Your task to perform on an android device: turn on showing notifications on the lock screen Image 0: 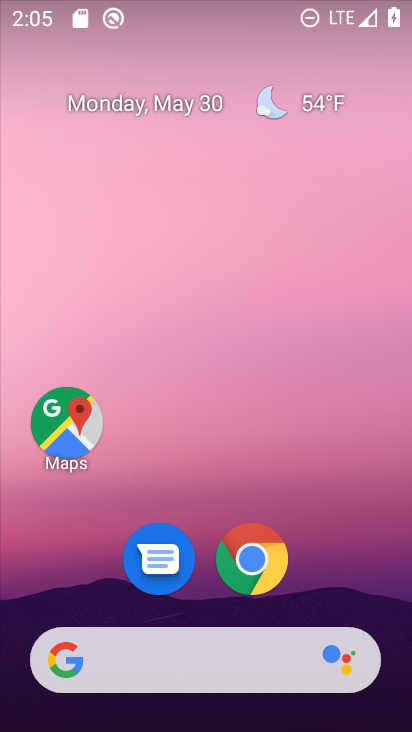
Step 0: drag from (327, 592) to (291, 42)
Your task to perform on an android device: turn on showing notifications on the lock screen Image 1: 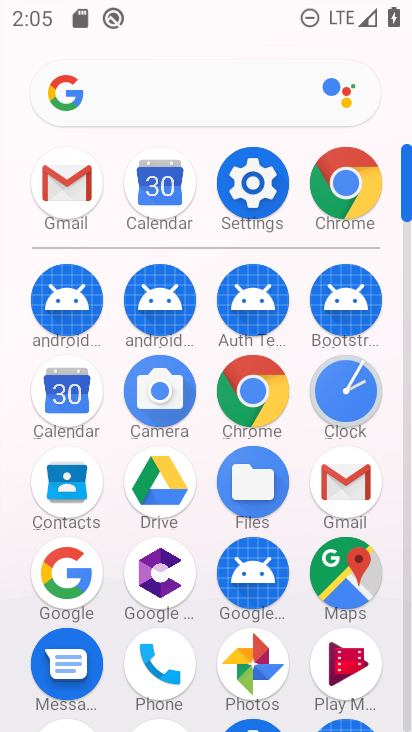
Step 1: click (257, 185)
Your task to perform on an android device: turn on showing notifications on the lock screen Image 2: 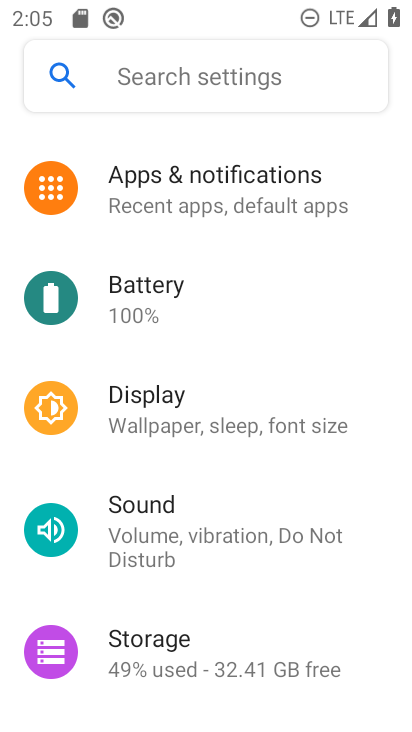
Step 2: click (228, 204)
Your task to perform on an android device: turn on showing notifications on the lock screen Image 3: 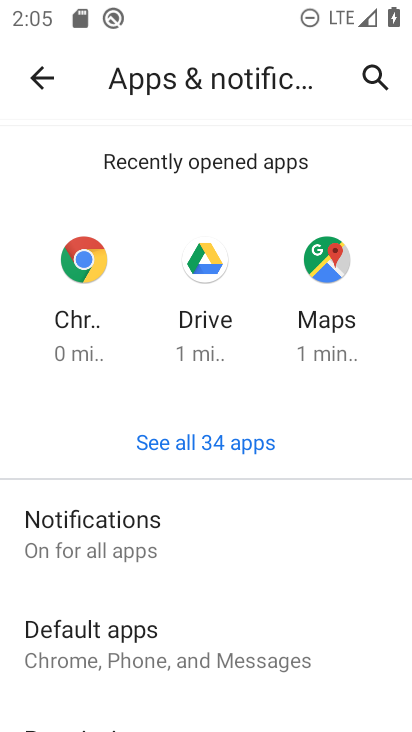
Step 3: click (137, 537)
Your task to perform on an android device: turn on showing notifications on the lock screen Image 4: 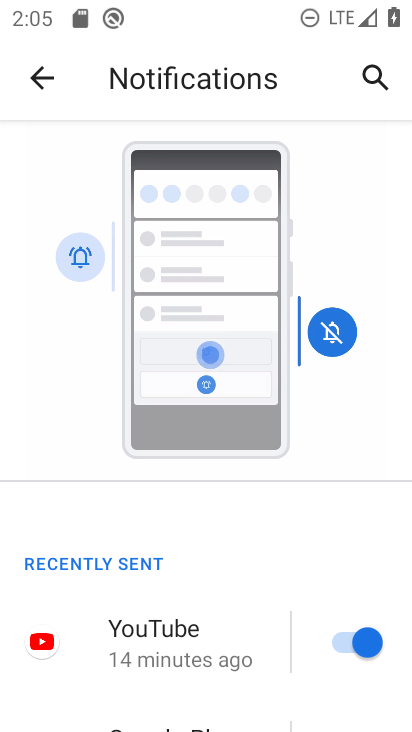
Step 4: drag from (170, 592) to (205, 191)
Your task to perform on an android device: turn on showing notifications on the lock screen Image 5: 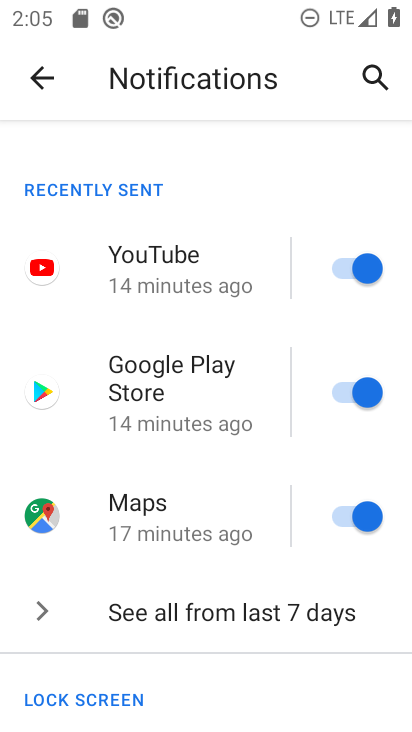
Step 5: drag from (190, 634) to (301, 268)
Your task to perform on an android device: turn on showing notifications on the lock screen Image 6: 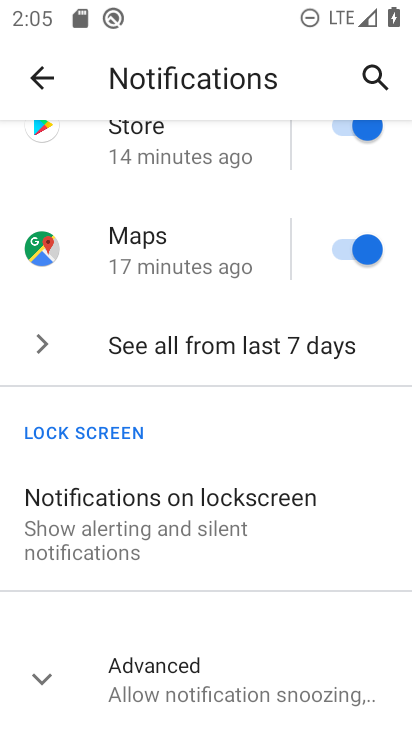
Step 6: click (140, 520)
Your task to perform on an android device: turn on showing notifications on the lock screen Image 7: 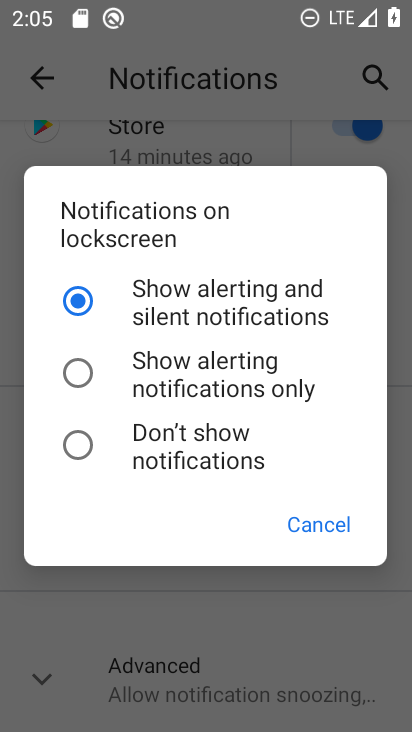
Step 7: click (163, 382)
Your task to perform on an android device: turn on showing notifications on the lock screen Image 8: 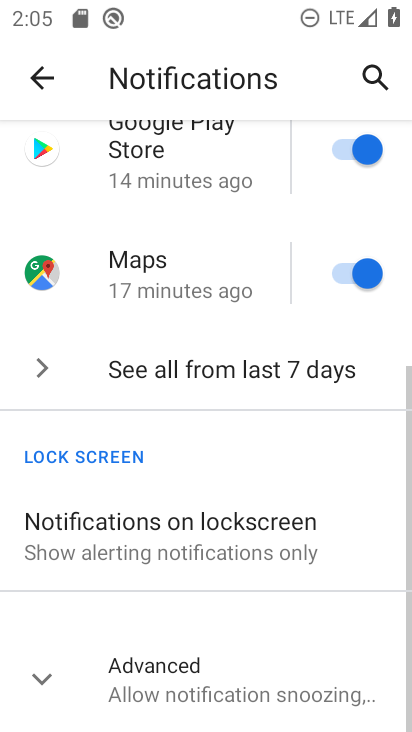
Step 8: task complete